Your task to perform on an android device: choose inbox layout in the gmail app Image 0: 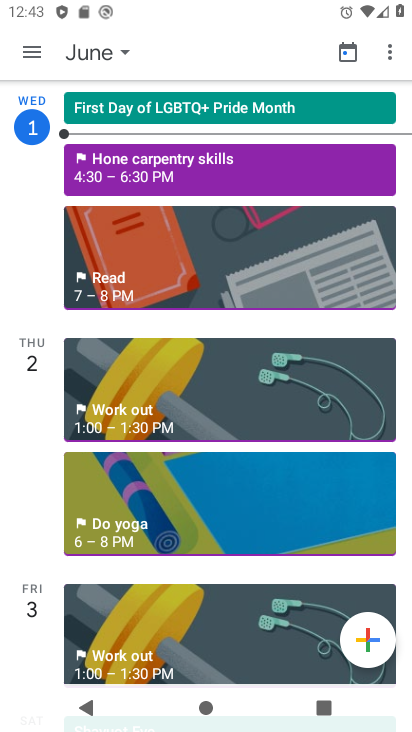
Step 0: press home button
Your task to perform on an android device: choose inbox layout in the gmail app Image 1: 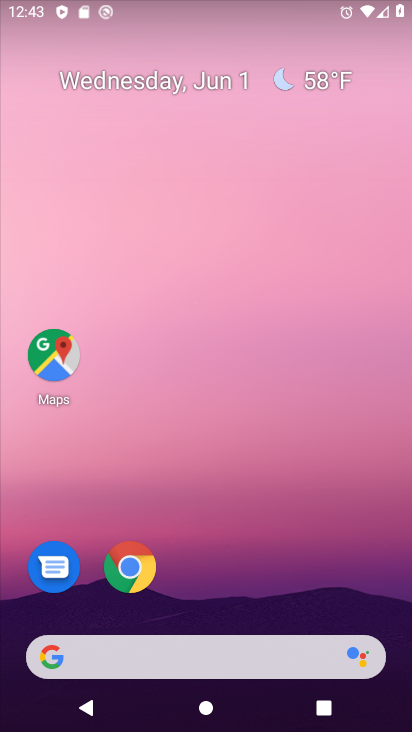
Step 1: drag from (225, 581) to (271, 63)
Your task to perform on an android device: choose inbox layout in the gmail app Image 2: 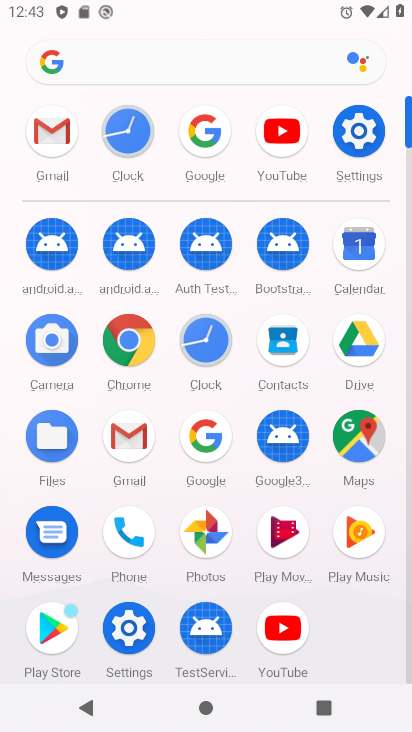
Step 2: click (55, 132)
Your task to perform on an android device: choose inbox layout in the gmail app Image 3: 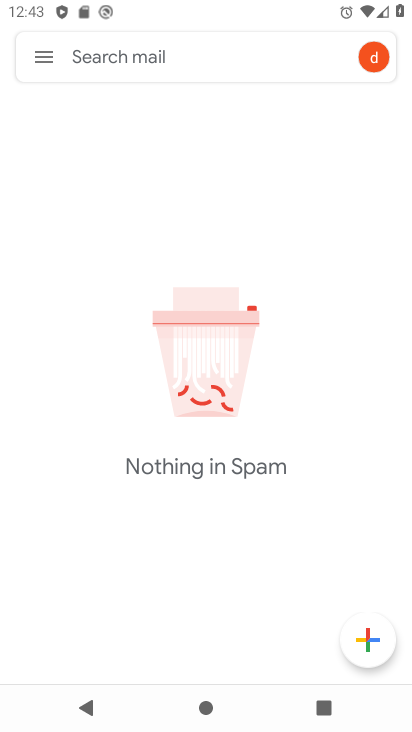
Step 3: click (45, 52)
Your task to perform on an android device: choose inbox layout in the gmail app Image 4: 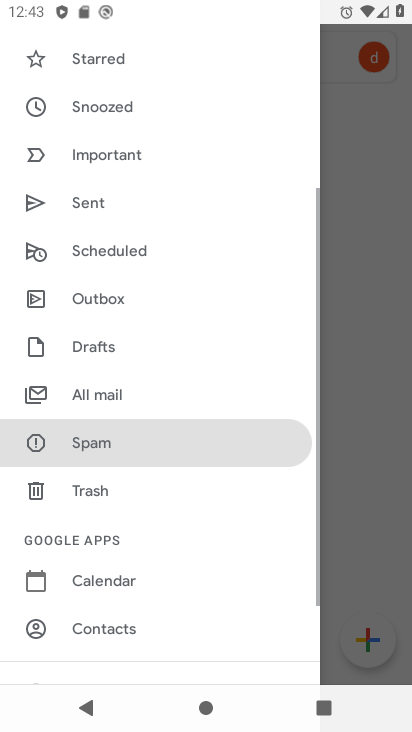
Step 4: drag from (129, 568) to (164, 109)
Your task to perform on an android device: choose inbox layout in the gmail app Image 5: 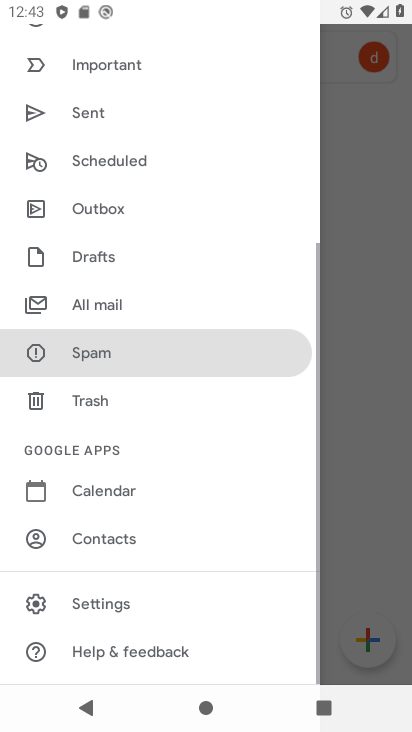
Step 5: click (120, 600)
Your task to perform on an android device: choose inbox layout in the gmail app Image 6: 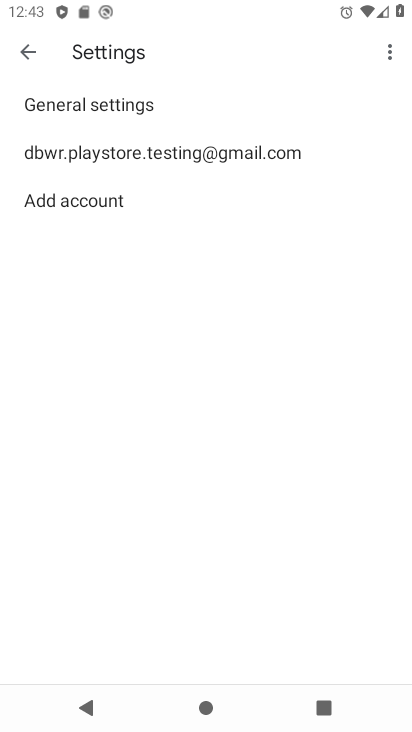
Step 6: click (107, 154)
Your task to perform on an android device: choose inbox layout in the gmail app Image 7: 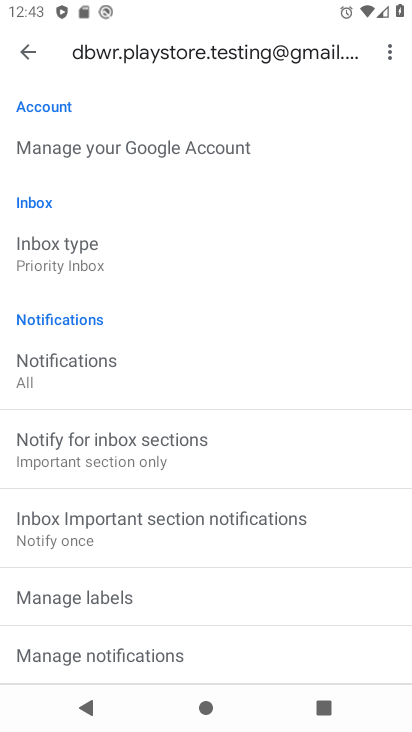
Step 7: click (61, 269)
Your task to perform on an android device: choose inbox layout in the gmail app Image 8: 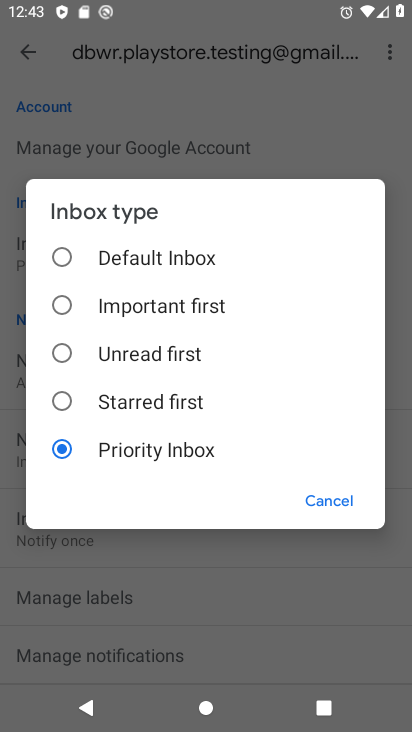
Step 8: click (67, 262)
Your task to perform on an android device: choose inbox layout in the gmail app Image 9: 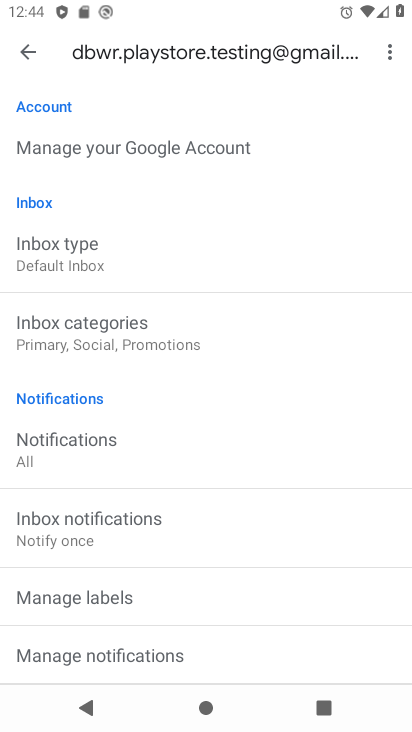
Step 9: task complete